Your task to perform on an android device: Open accessibility settings Image 0: 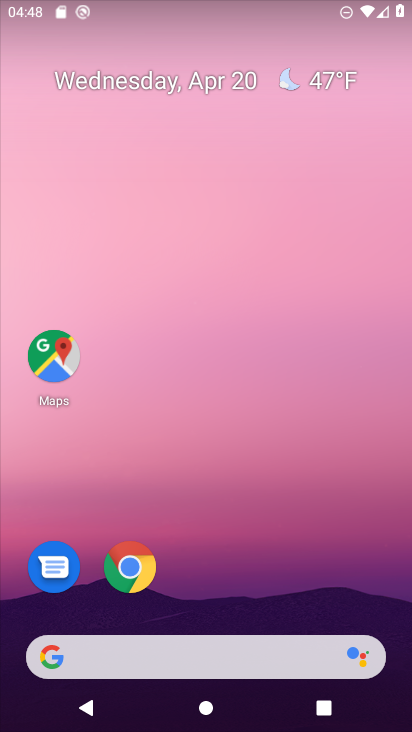
Step 0: drag from (221, 625) to (130, 191)
Your task to perform on an android device: Open accessibility settings Image 1: 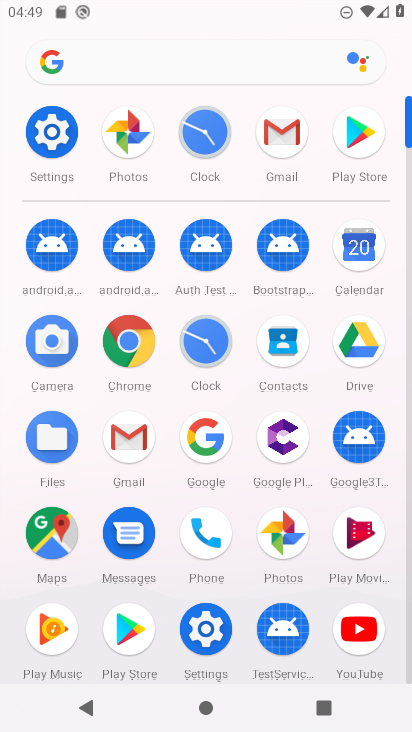
Step 1: click (194, 630)
Your task to perform on an android device: Open accessibility settings Image 2: 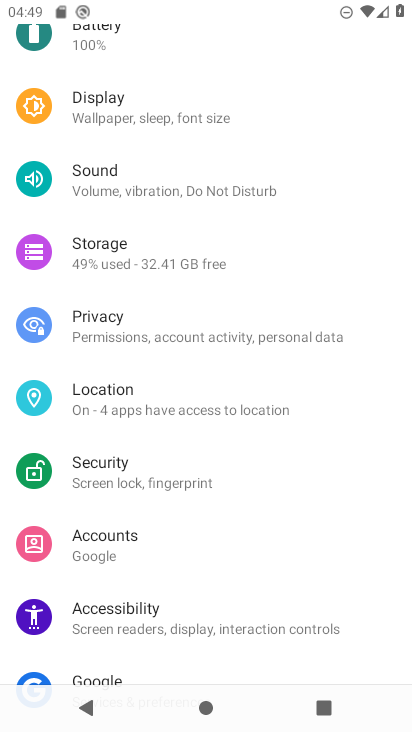
Step 2: click (194, 630)
Your task to perform on an android device: Open accessibility settings Image 3: 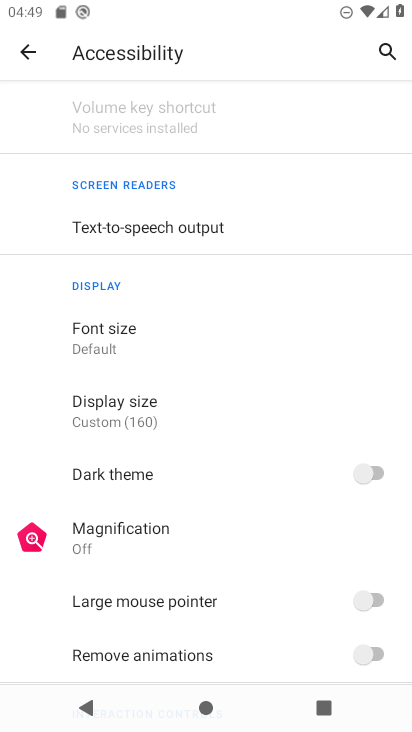
Step 3: task complete